Your task to perform on an android device: open app "Upside-Cash back on gas & food" (install if not already installed) Image 0: 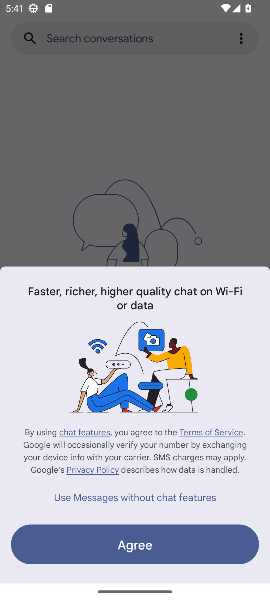
Step 0: press home button
Your task to perform on an android device: open app "Upside-Cash back on gas & food" (install if not already installed) Image 1: 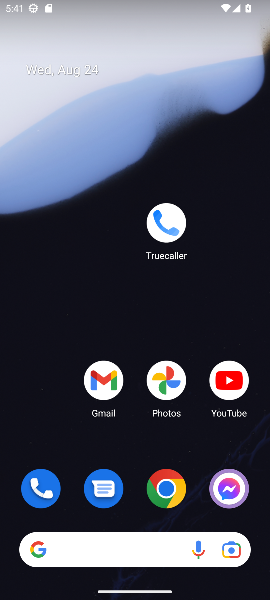
Step 1: drag from (130, 526) to (113, 49)
Your task to perform on an android device: open app "Upside-Cash back on gas & food" (install if not already installed) Image 2: 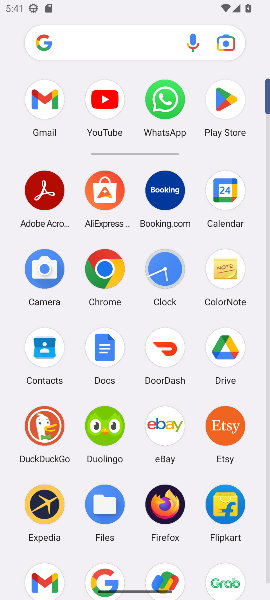
Step 2: click (211, 111)
Your task to perform on an android device: open app "Upside-Cash back on gas & food" (install if not already installed) Image 3: 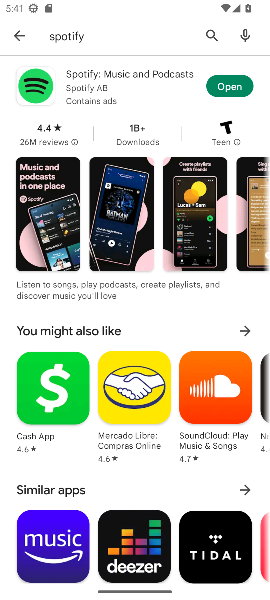
Step 3: click (216, 37)
Your task to perform on an android device: open app "Upside-Cash back on gas & food" (install if not already installed) Image 4: 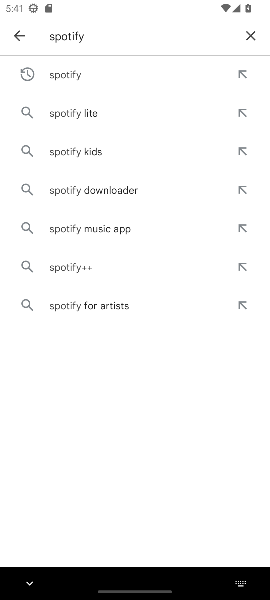
Step 4: click (250, 37)
Your task to perform on an android device: open app "Upside-Cash back on gas & food" (install if not already installed) Image 5: 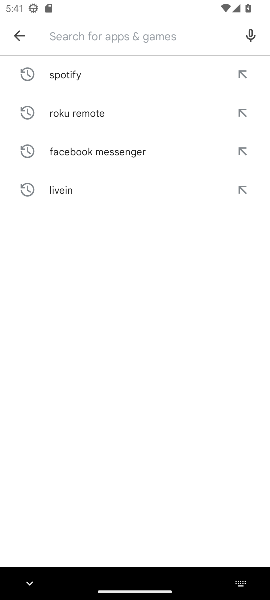
Step 5: type "upside"
Your task to perform on an android device: open app "Upside-Cash back on gas & food" (install if not already installed) Image 6: 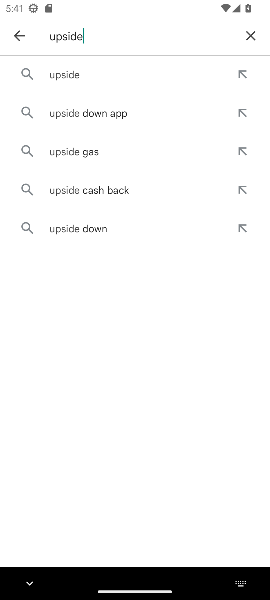
Step 6: click (85, 81)
Your task to perform on an android device: open app "Upside-Cash back on gas & food" (install if not already installed) Image 7: 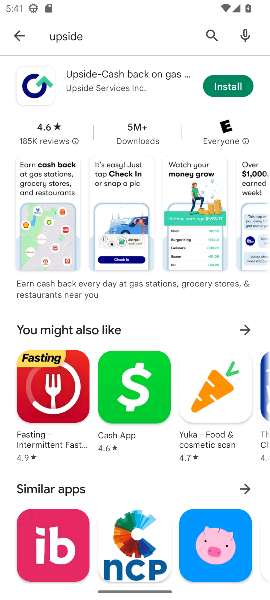
Step 7: click (208, 86)
Your task to perform on an android device: open app "Upside-Cash back on gas & food" (install if not already installed) Image 8: 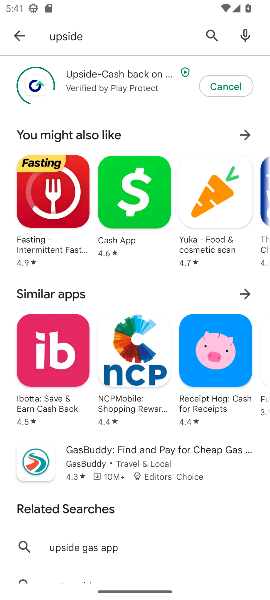
Step 8: task complete